Your task to perform on an android device: Open the calendar and show me this week's events? Image 0: 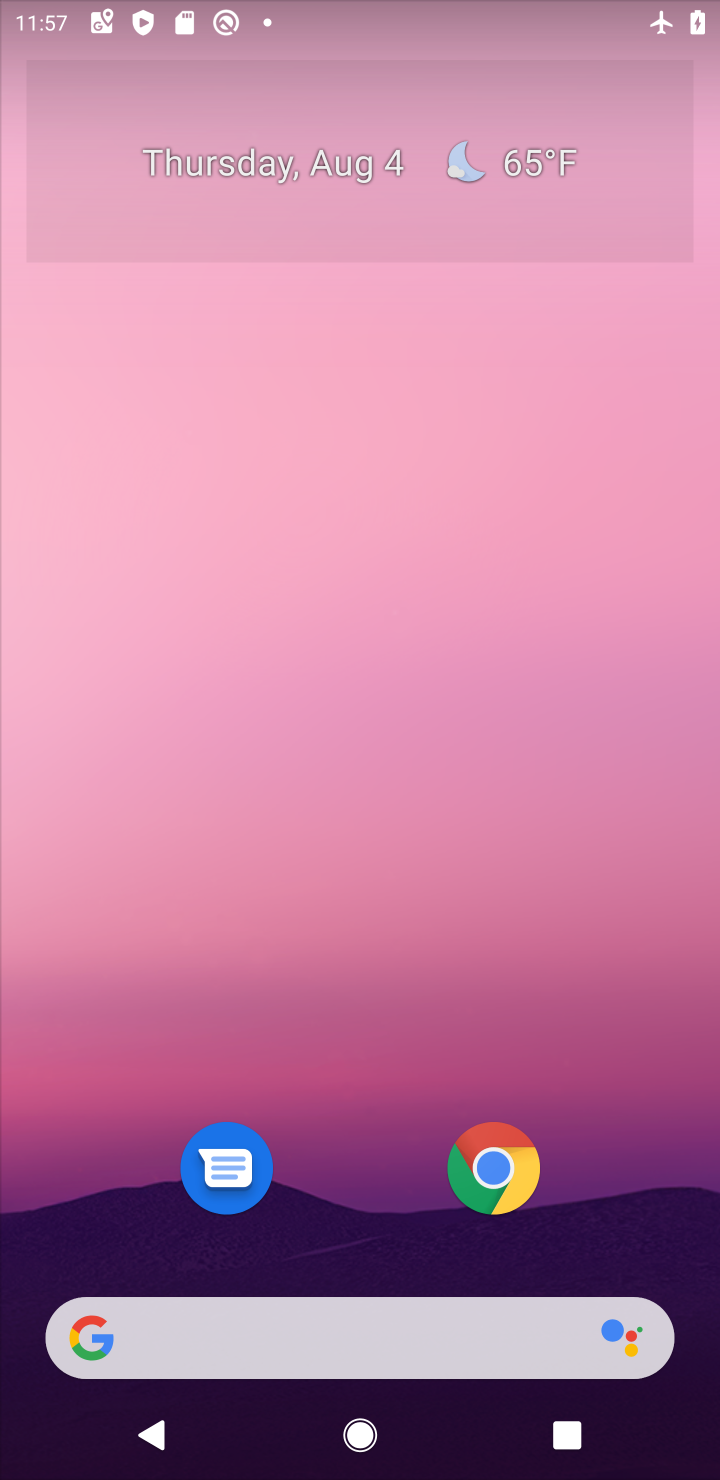
Step 0: drag from (637, 1234) to (406, 98)
Your task to perform on an android device: Open the calendar and show me this week's events? Image 1: 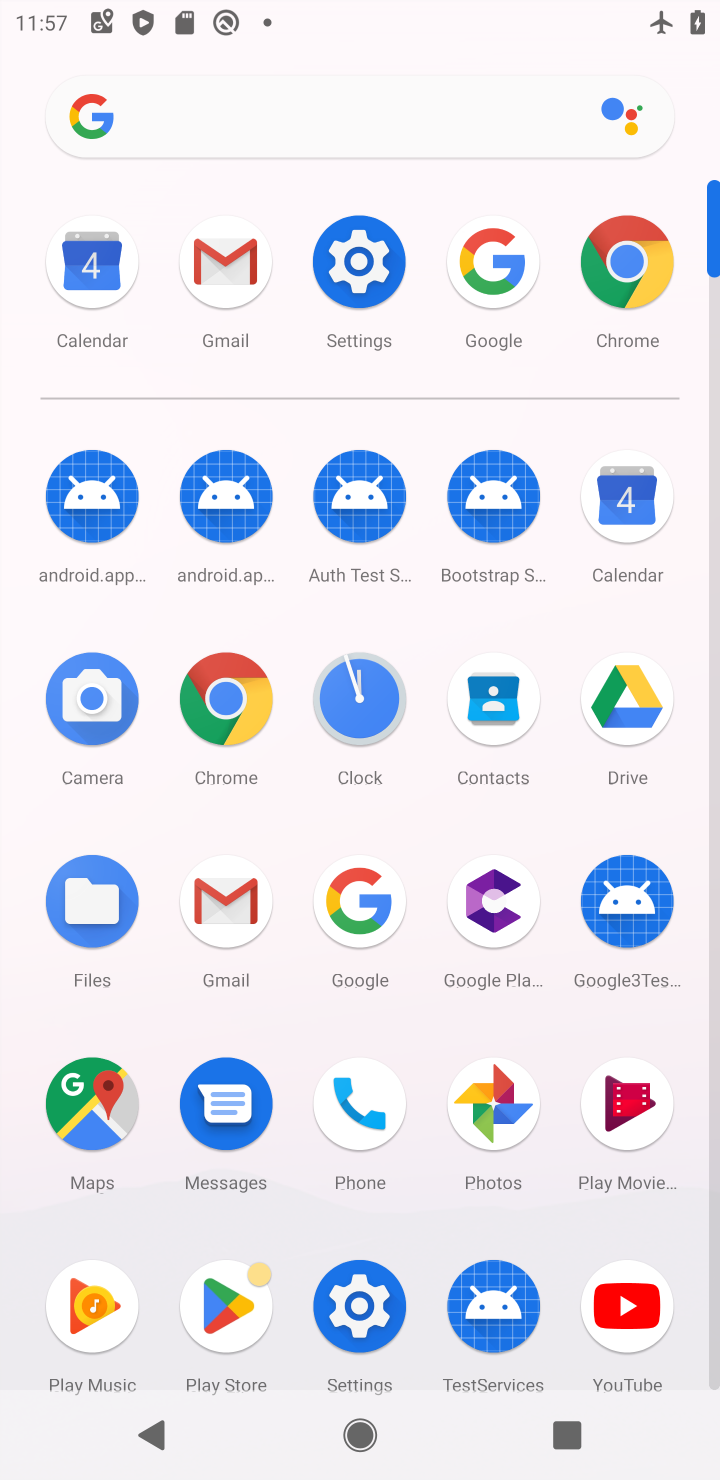
Step 1: click (618, 524)
Your task to perform on an android device: Open the calendar and show me this week's events? Image 2: 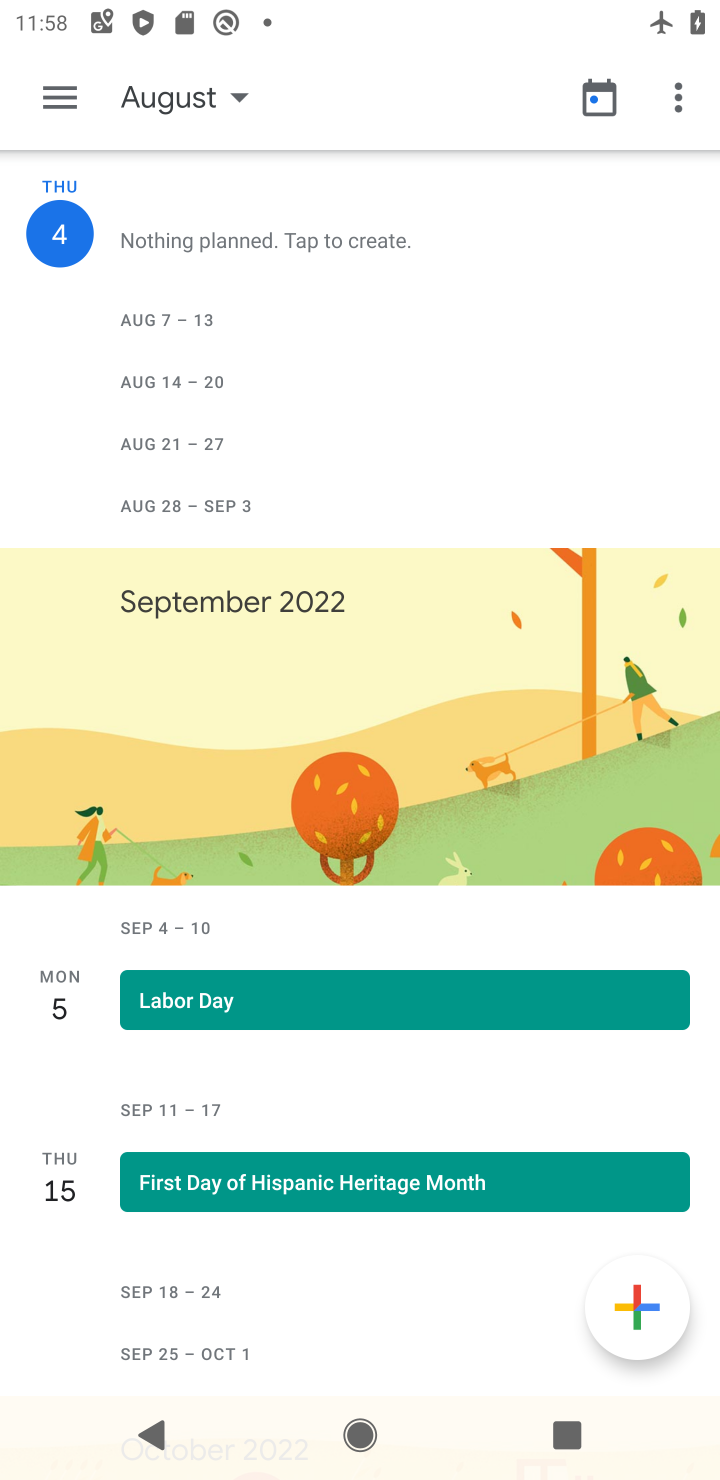
Step 2: task complete